Your task to perform on an android device: set the stopwatch Image 0: 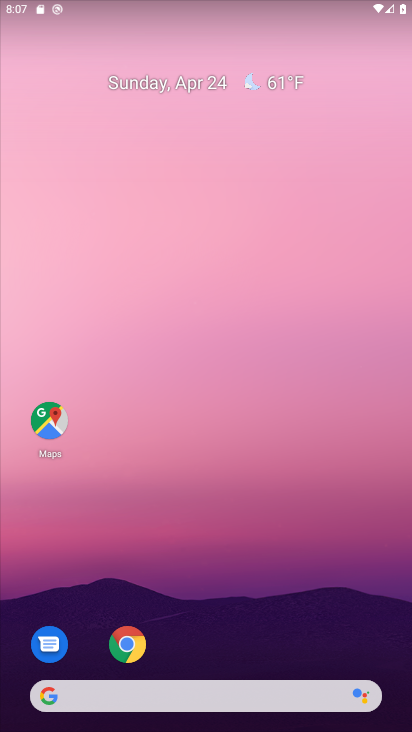
Step 0: drag from (224, 646) to (261, 64)
Your task to perform on an android device: set the stopwatch Image 1: 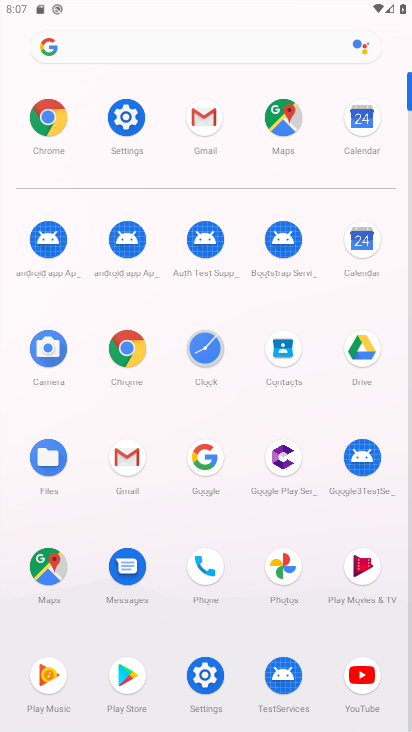
Step 1: click (201, 340)
Your task to perform on an android device: set the stopwatch Image 2: 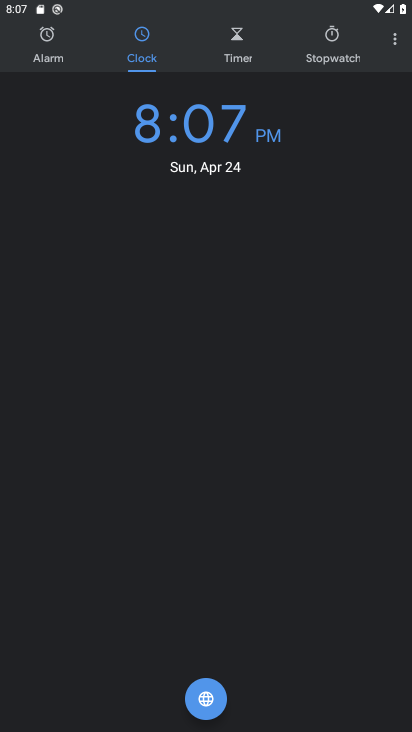
Step 2: click (334, 37)
Your task to perform on an android device: set the stopwatch Image 3: 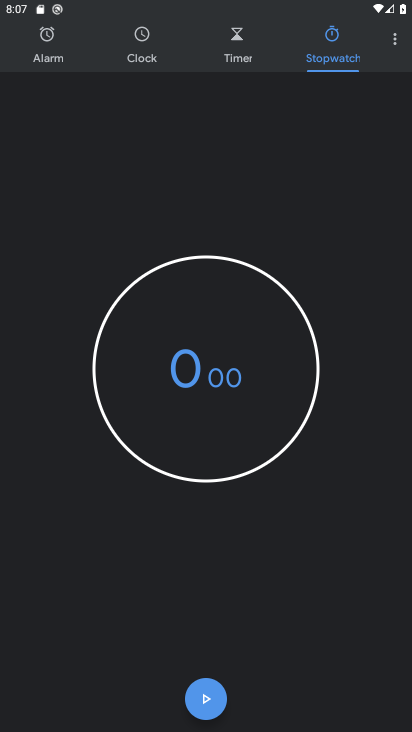
Step 3: click (203, 691)
Your task to perform on an android device: set the stopwatch Image 4: 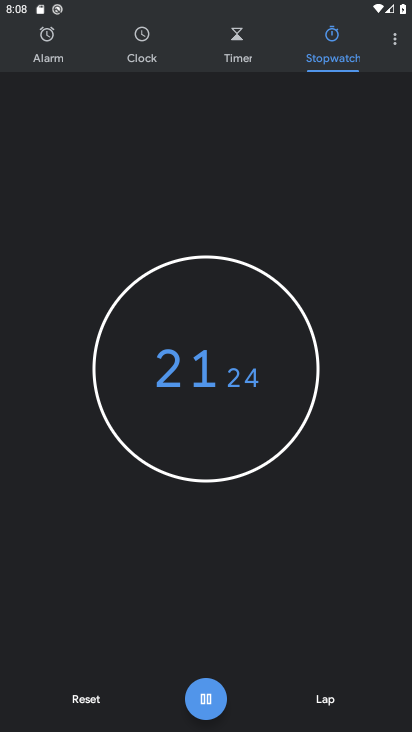
Step 4: task complete